Your task to perform on an android device: turn on data saver in the chrome app Image 0: 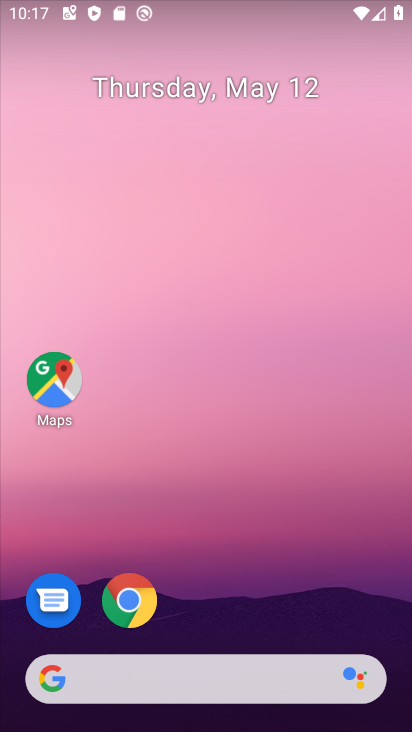
Step 0: drag from (237, 596) to (288, 126)
Your task to perform on an android device: turn on data saver in the chrome app Image 1: 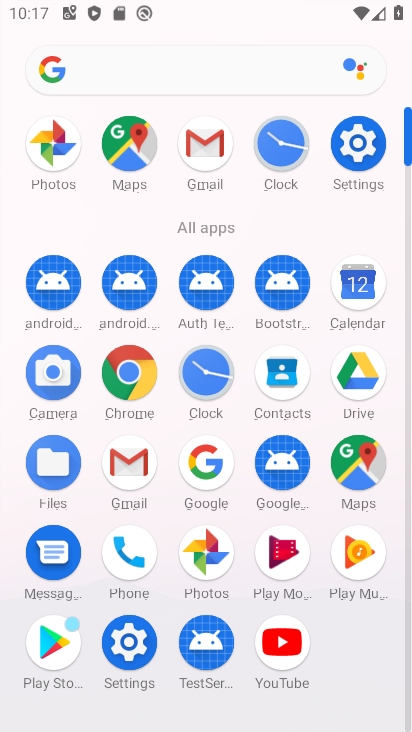
Step 1: click (136, 376)
Your task to perform on an android device: turn on data saver in the chrome app Image 2: 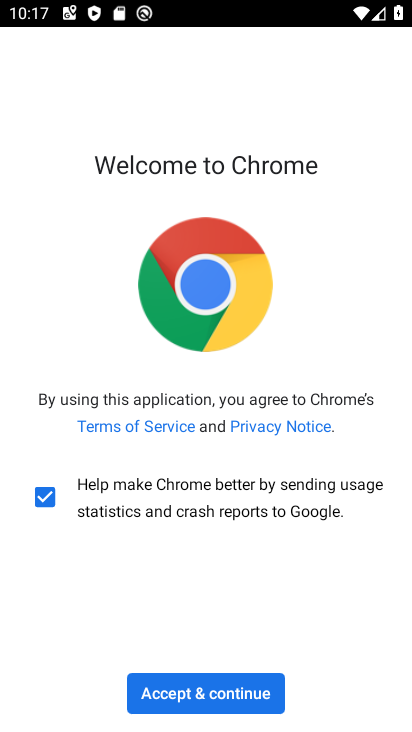
Step 2: click (196, 699)
Your task to perform on an android device: turn on data saver in the chrome app Image 3: 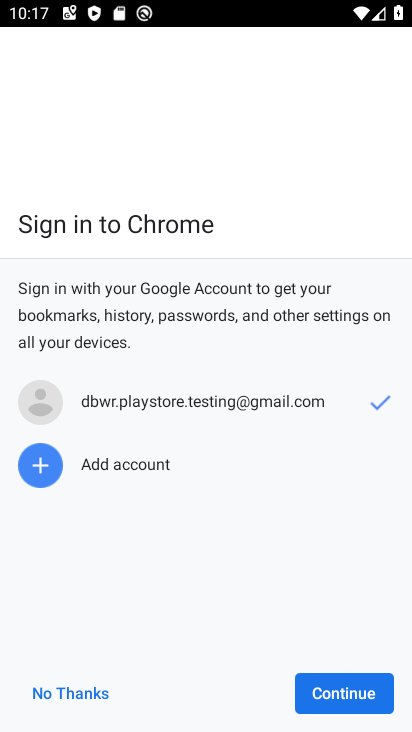
Step 3: click (329, 690)
Your task to perform on an android device: turn on data saver in the chrome app Image 4: 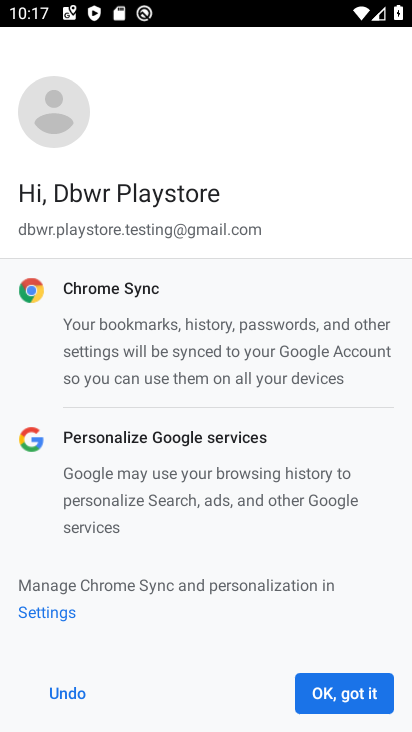
Step 4: click (328, 689)
Your task to perform on an android device: turn on data saver in the chrome app Image 5: 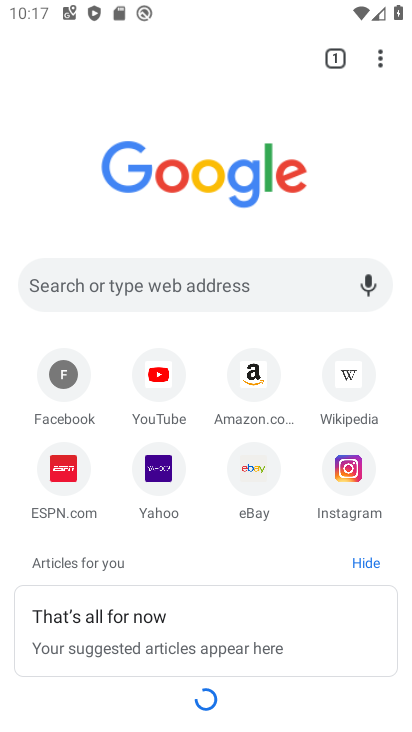
Step 5: click (382, 58)
Your task to perform on an android device: turn on data saver in the chrome app Image 6: 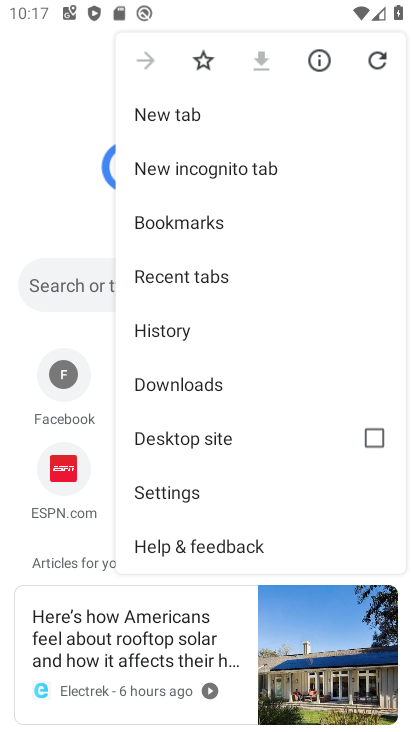
Step 6: click (173, 486)
Your task to perform on an android device: turn on data saver in the chrome app Image 7: 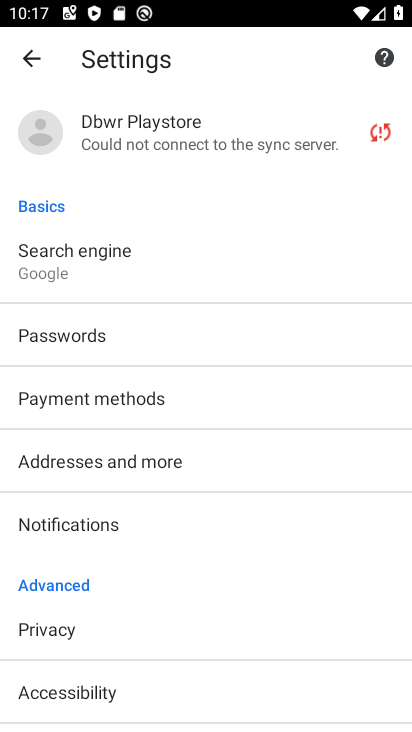
Step 7: drag from (121, 549) to (154, 267)
Your task to perform on an android device: turn on data saver in the chrome app Image 8: 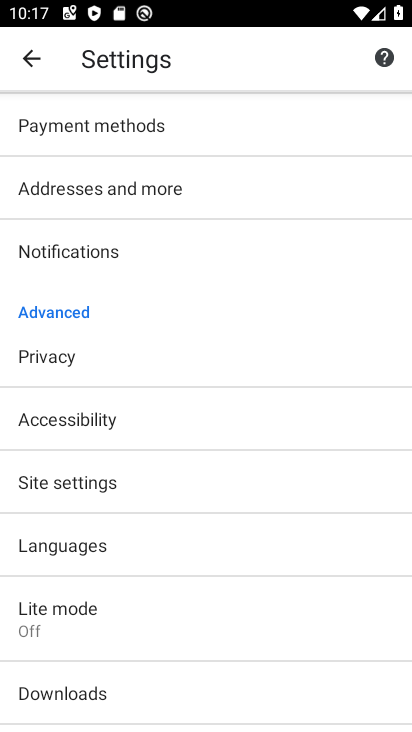
Step 8: click (71, 599)
Your task to perform on an android device: turn on data saver in the chrome app Image 9: 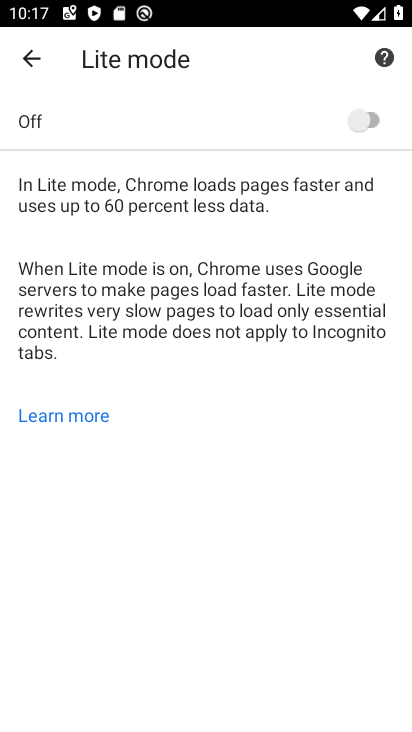
Step 9: click (374, 125)
Your task to perform on an android device: turn on data saver in the chrome app Image 10: 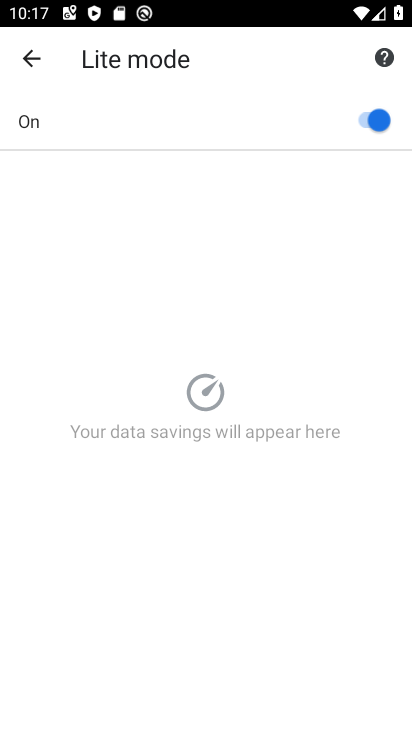
Step 10: task complete